Your task to perform on an android device: turn vacation reply on in the gmail app Image 0: 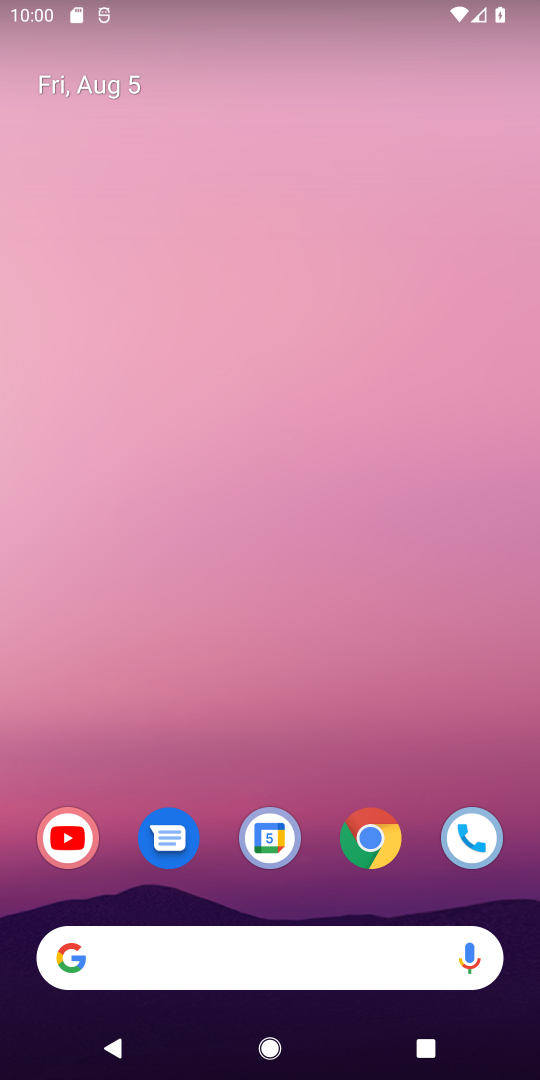
Step 0: drag from (220, 791) to (108, 11)
Your task to perform on an android device: turn vacation reply on in the gmail app Image 1: 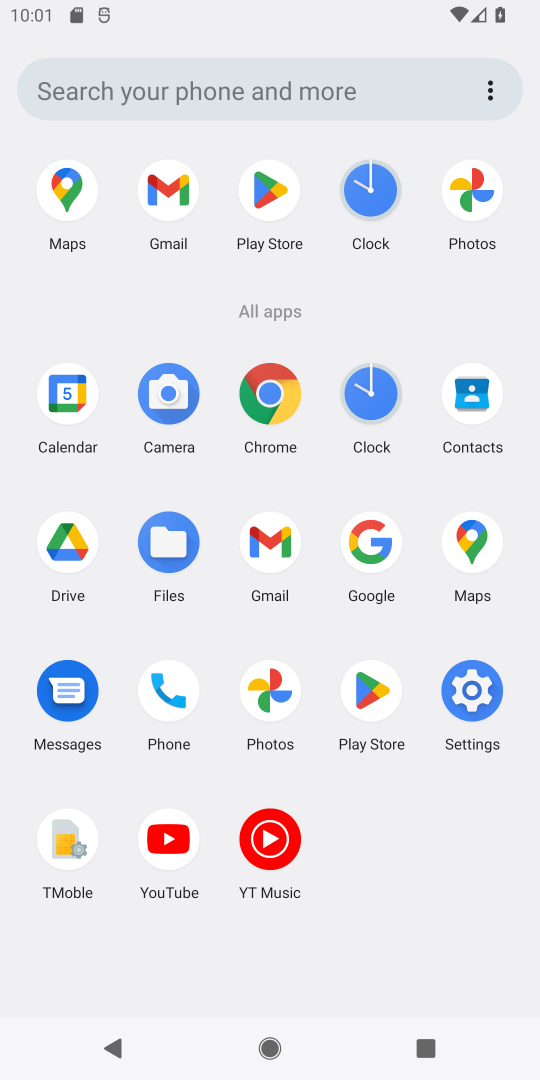
Step 1: click (175, 199)
Your task to perform on an android device: turn vacation reply on in the gmail app Image 2: 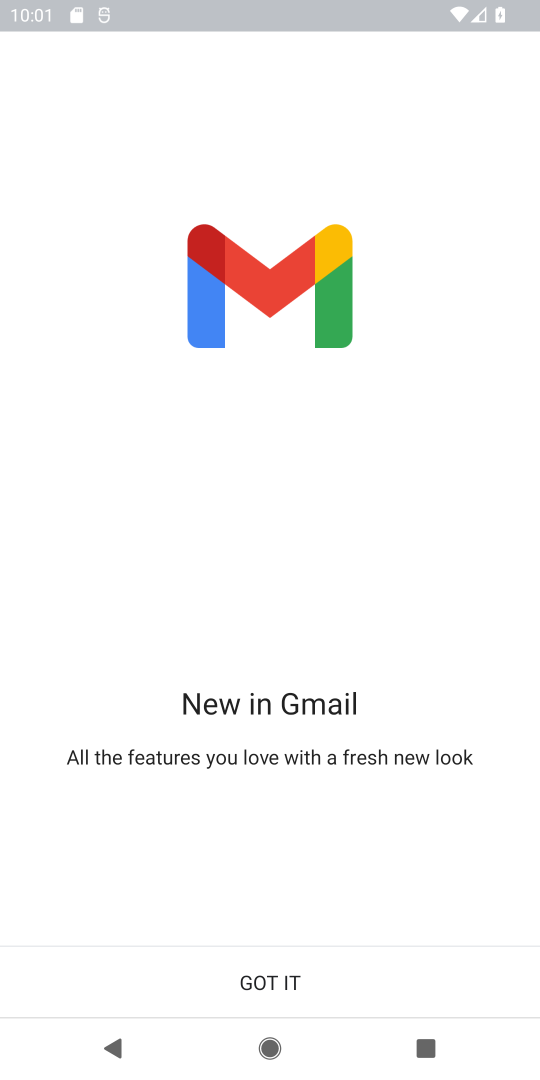
Step 2: click (284, 965)
Your task to perform on an android device: turn vacation reply on in the gmail app Image 3: 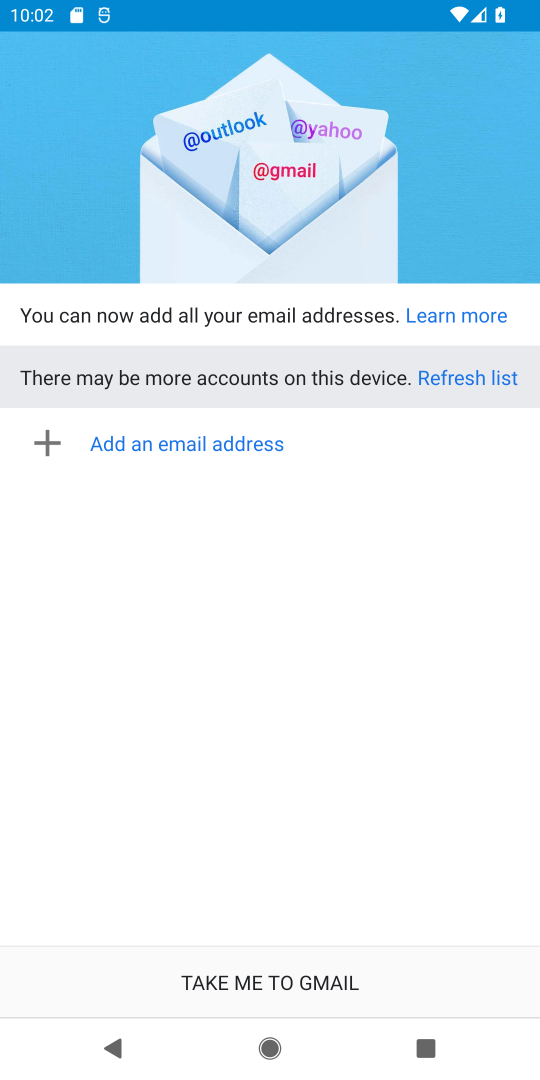
Step 3: task complete